Your task to perform on an android device: Search for 5 star sushi restaurants on Maps Image 0: 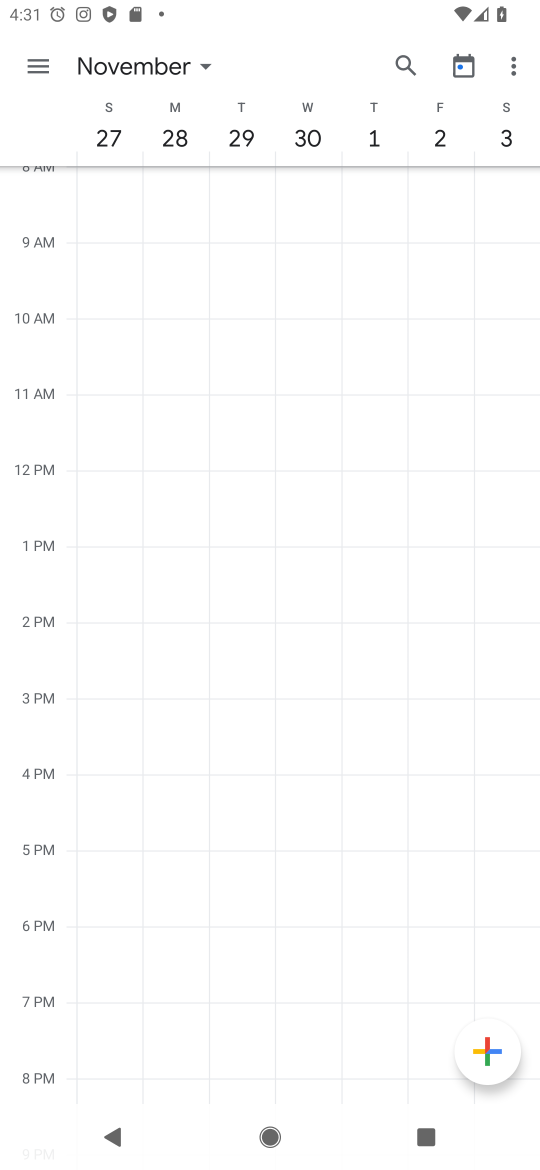
Step 0: press home button
Your task to perform on an android device: Search for 5 star sushi restaurants on Maps Image 1: 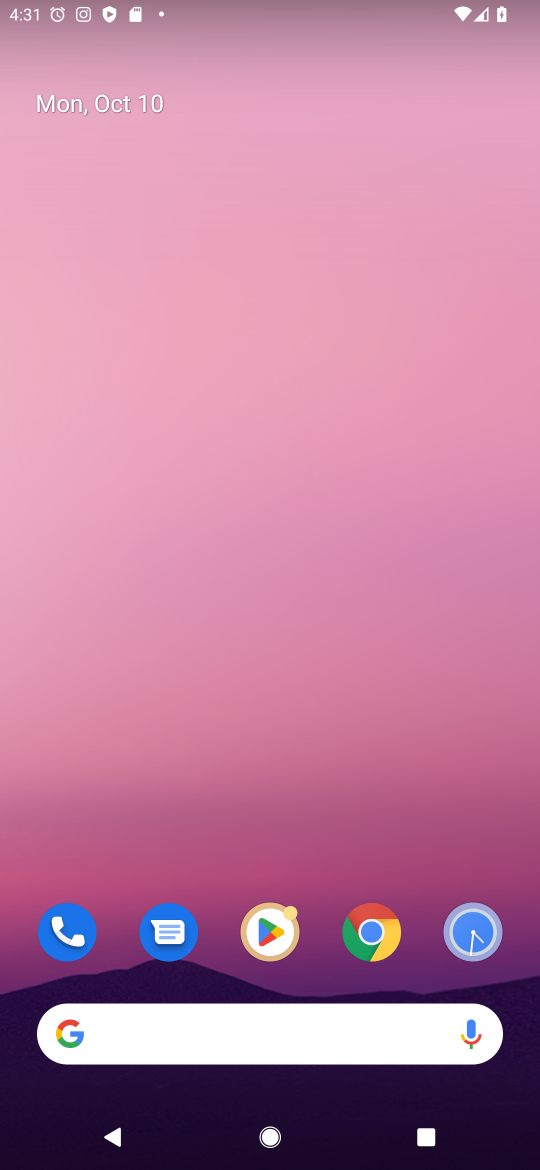
Step 1: click (298, 1051)
Your task to perform on an android device: Search for 5 star sushi restaurants on Maps Image 2: 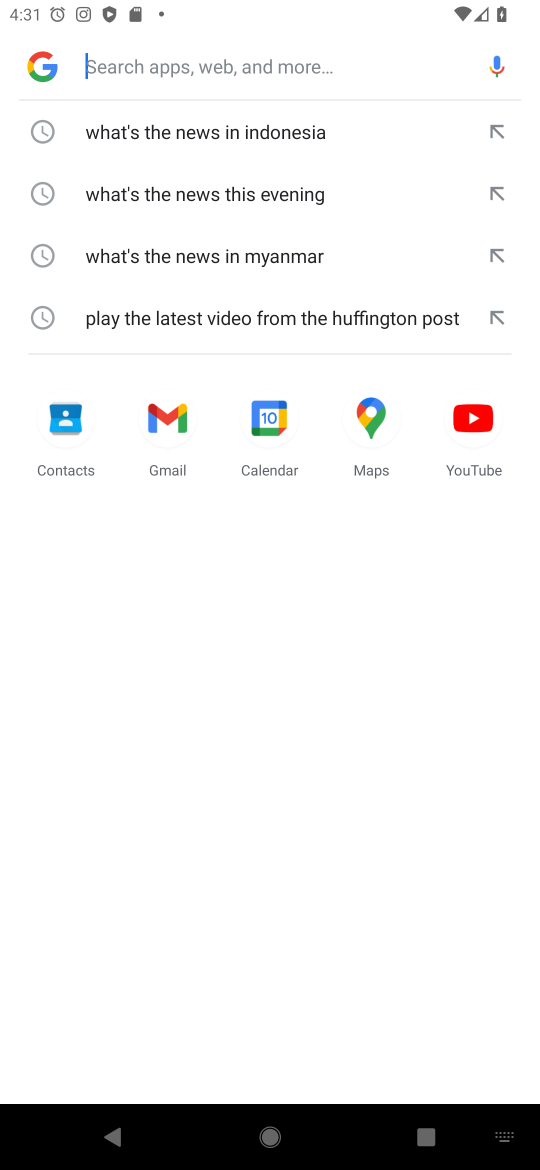
Step 2: press home button
Your task to perform on an android device: Search for 5 star sushi restaurants on Maps Image 3: 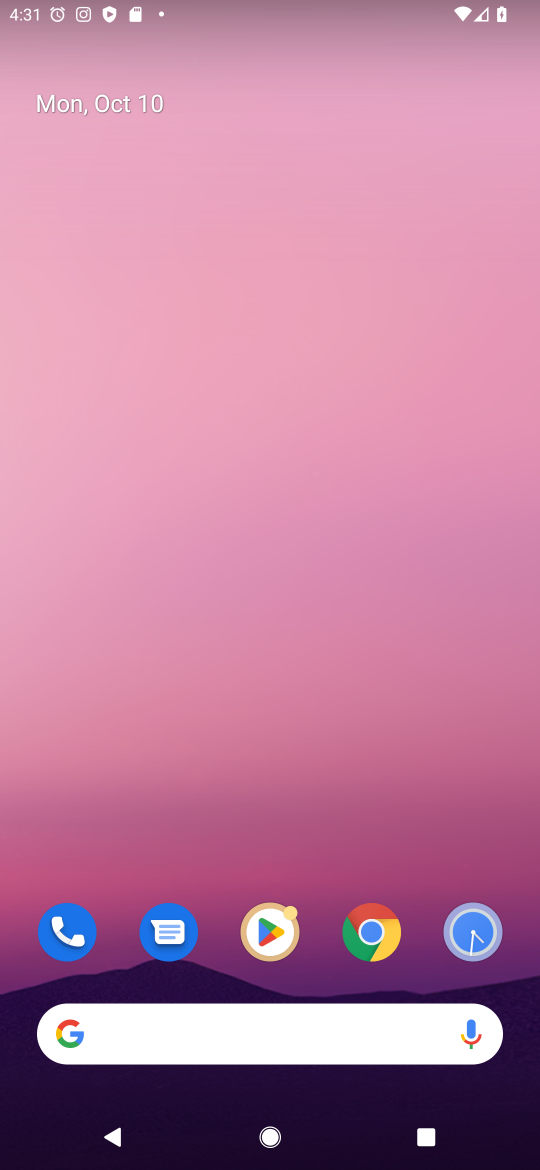
Step 3: drag from (489, 812) to (489, 125)
Your task to perform on an android device: Search for 5 star sushi restaurants on Maps Image 4: 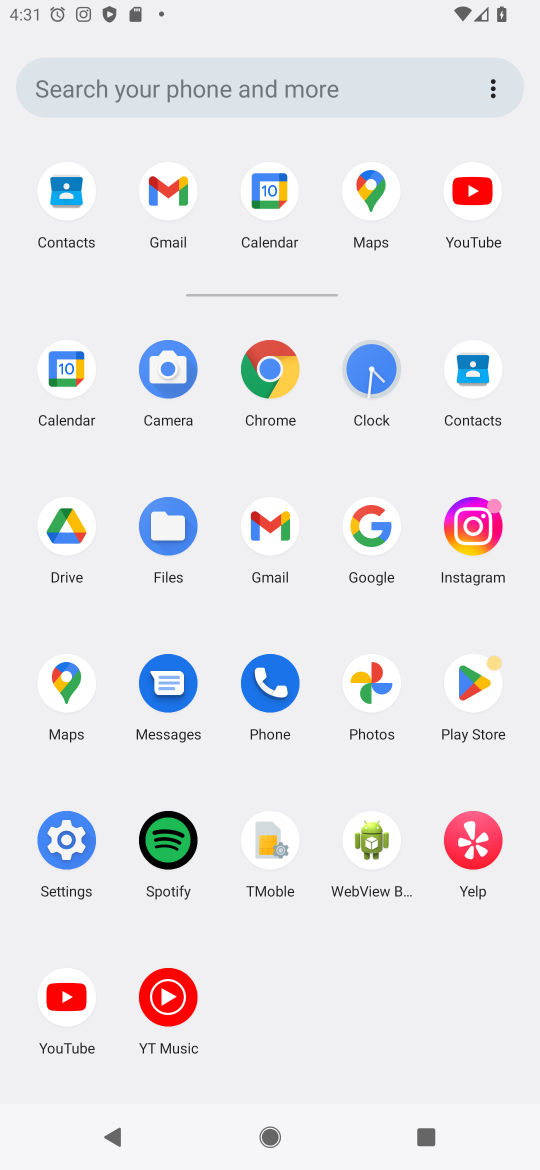
Step 4: click (368, 201)
Your task to perform on an android device: Search for 5 star sushi restaurants on Maps Image 5: 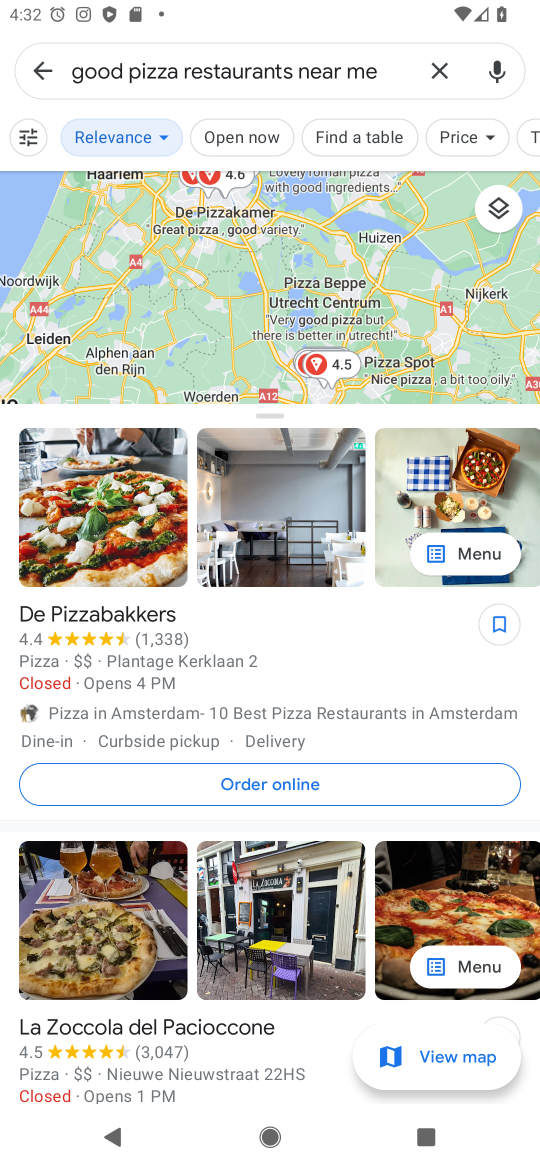
Step 5: click (435, 64)
Your task to perform on an android device: Search for 5 star sushi restaurants on Maps Image 6: 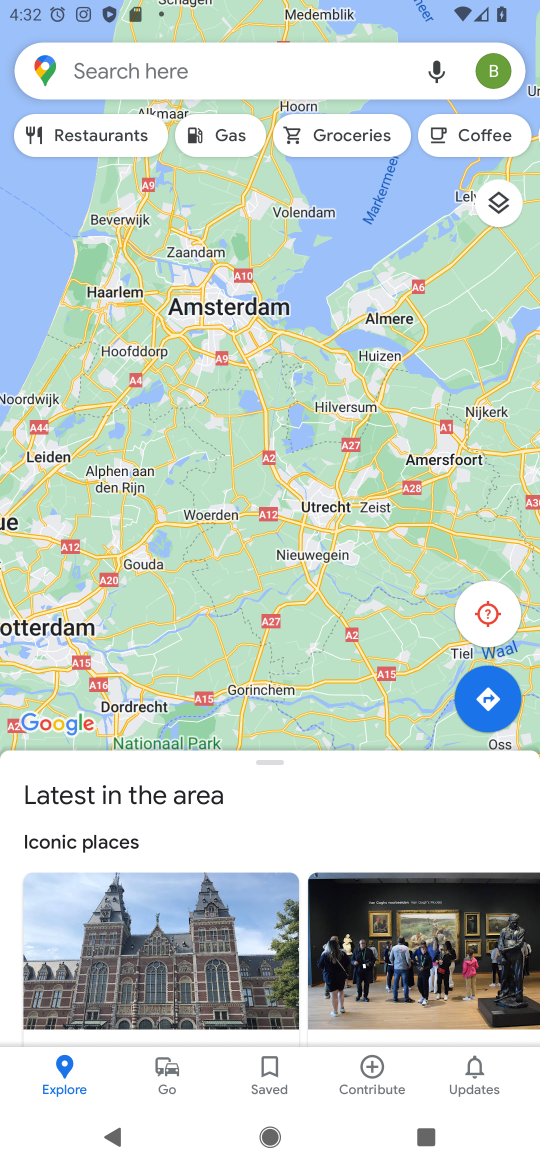
Step 6: click (294, 69)
Your task to perform on an android device: Search for 5 star sushi restaurants on Maps Image 7: 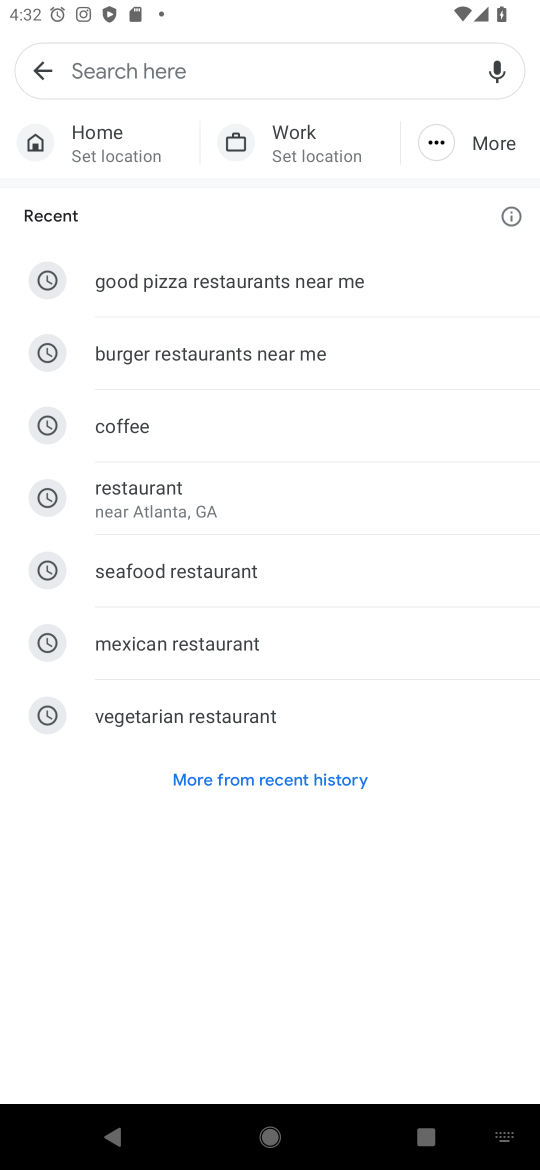
Step 7: type "5 star sushi restaurants"
Your task to perform on an android device: Search for 5 star sushi restaurants on Maps Image 8: 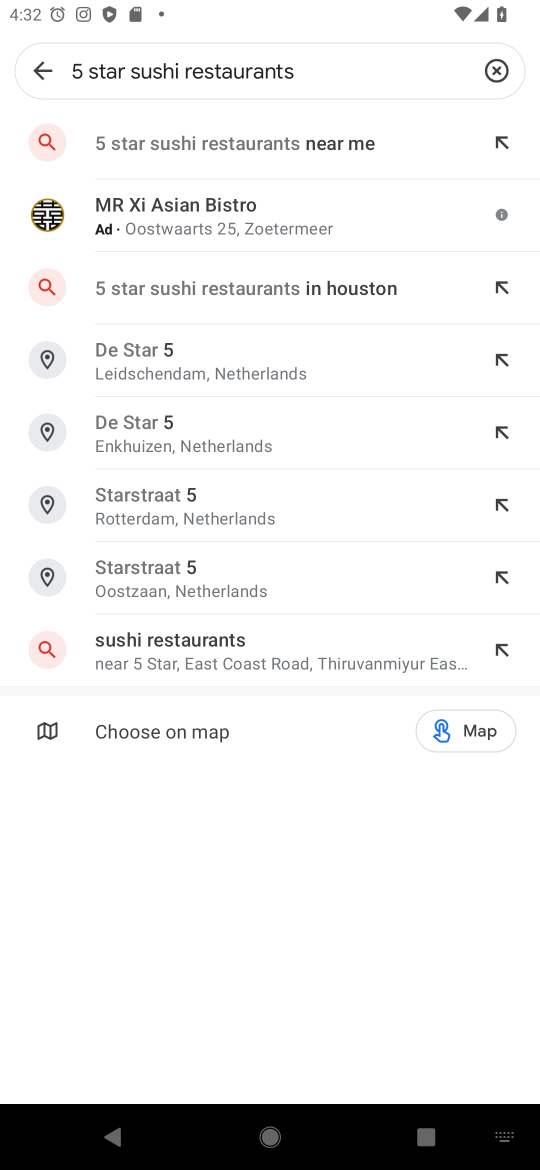
Step 8: click (277, 147)
Your task to perform on an android device: Search for 5 star sushi restaurants on Maps Image 9: 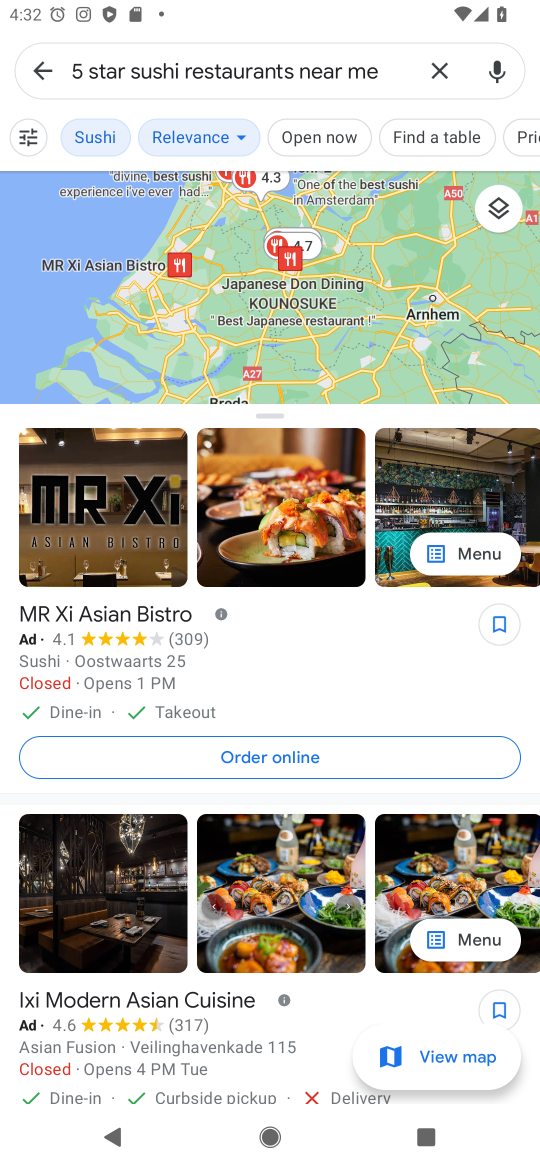
Step 9: task complete